Your task to perform on an android device: Open wifi settings Image 0: 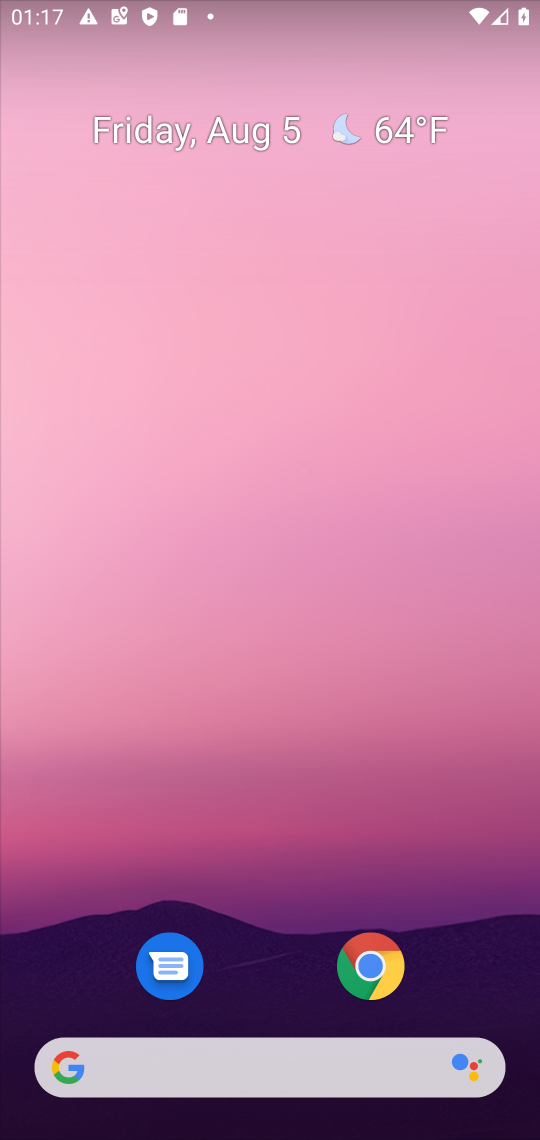
Step 0: drag from (309, 817) to (343, 42)
Your task to perform on an android device: Open wifi settings Image 1: 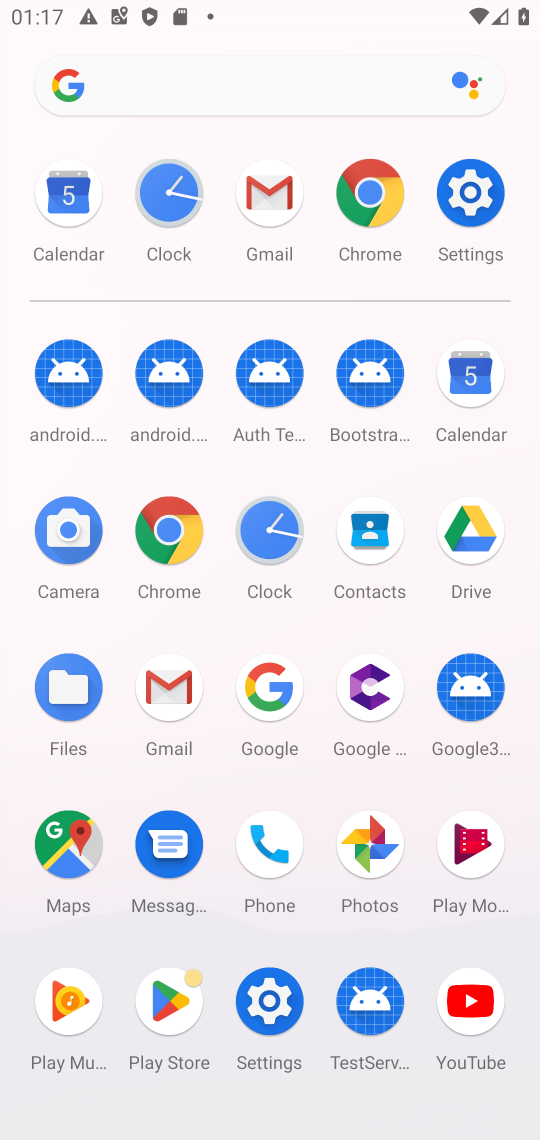
Step 1: click (470, 181)
Your task to perform on an android device: Open wifi settings Image 2: 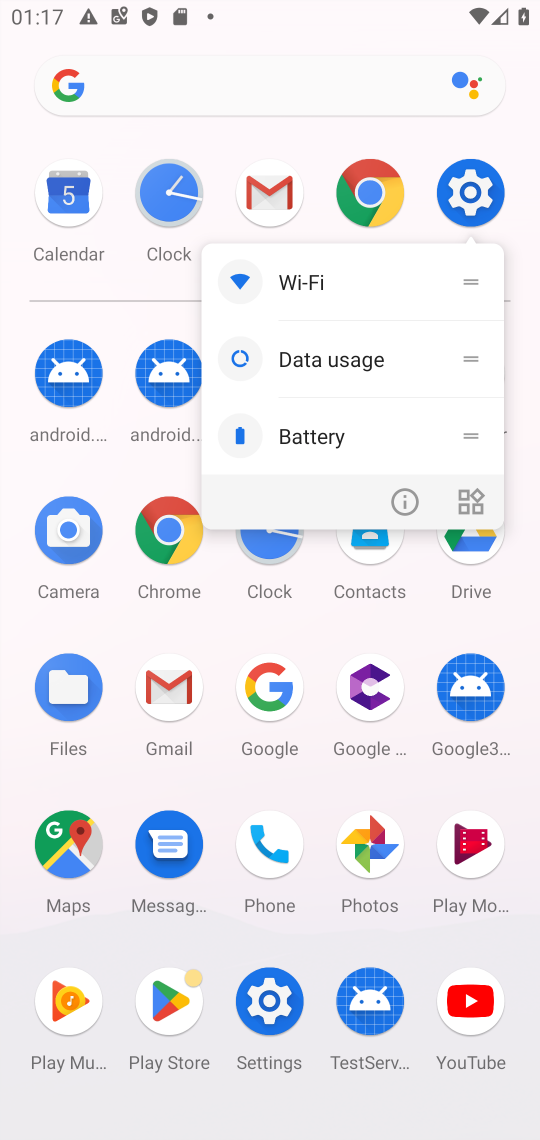
Step 2: click (470, 178)
Your task to perform on an android device: Open wifi settings Image 3: 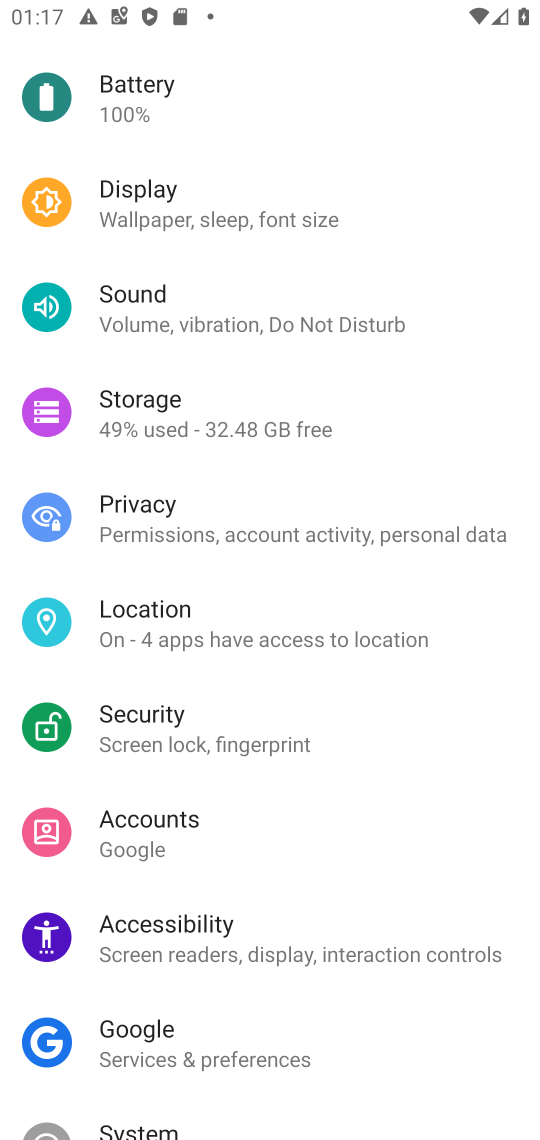
Step 3: drag from (260, 391) to (242, 947)
Your task to perform on an android device: Open wifi settings Image 4: 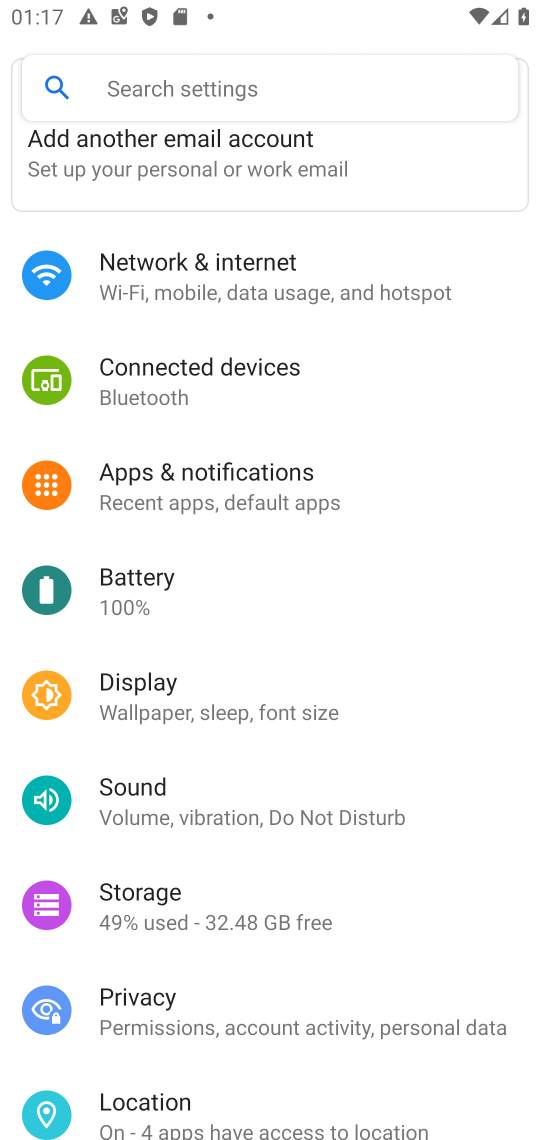
Step 4: click (321, 288)
Your task to perform on an android device: Open wifi settings Image 5: 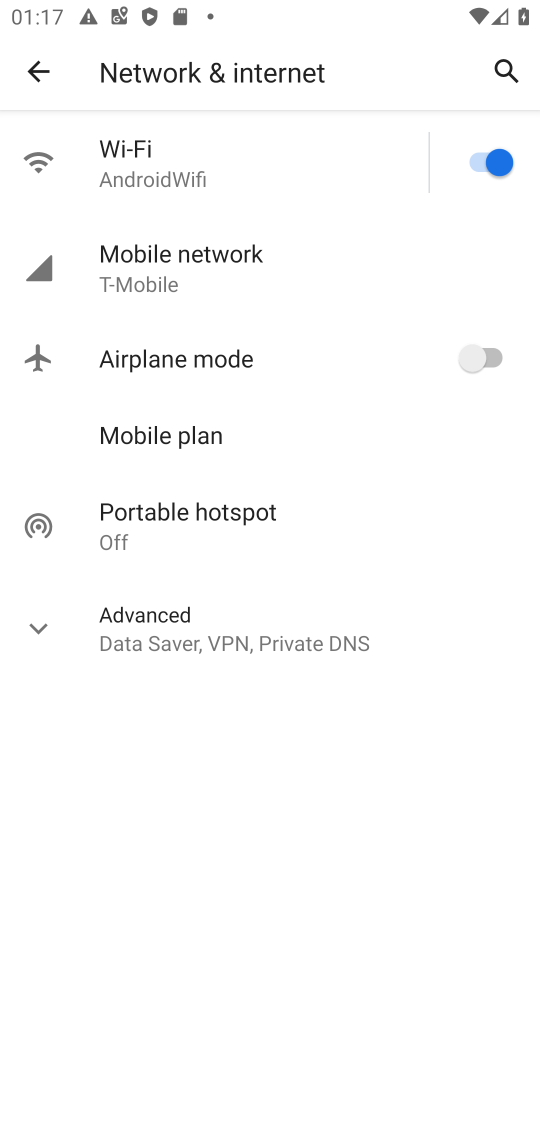
Step 5: click (192, 157)
Your task to perform on an android device: Open wifi settings Image 6: 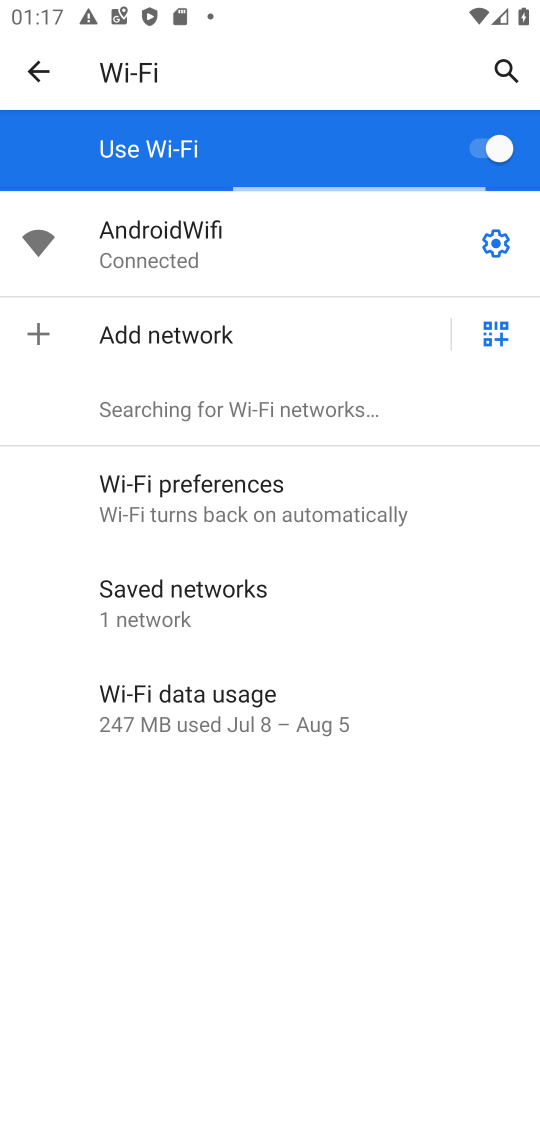
Step 6: task complete